Your task to perform on an android device: Go to eBay Image 0: 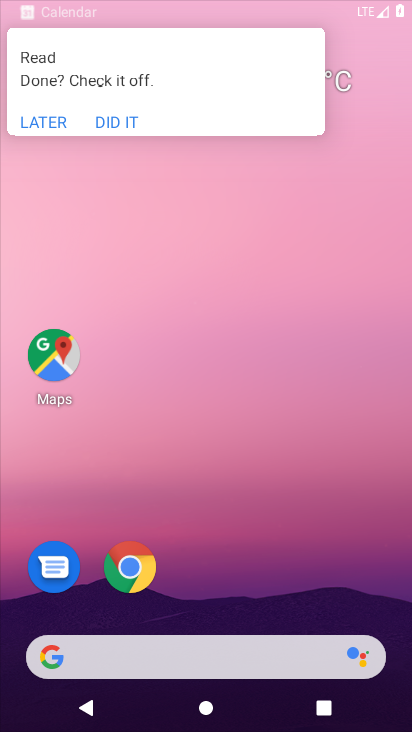
Step 0: drag from (204, 639) to (187, 123)
Your task to perform on an android device: Go to eBay Image 1: 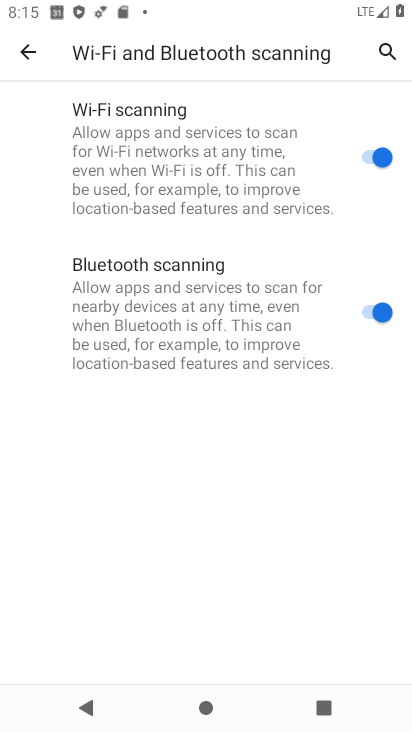
Step 1: press home button
Your task to perform on an android device: Go to eBay Image 2: 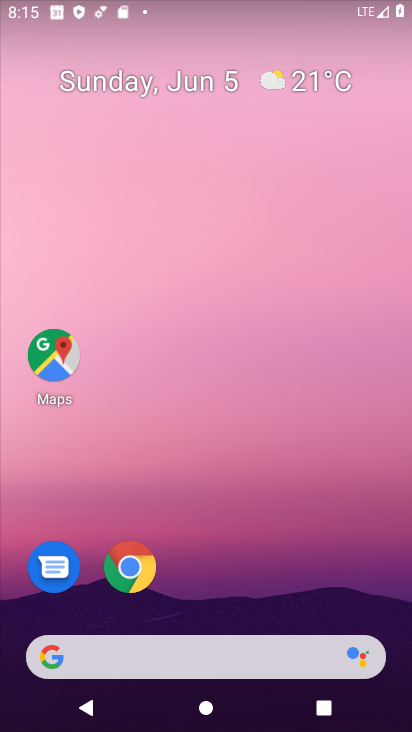
Step 2: click (133, 568)
Your task to perform on an android device: Go to eBay Image 3: 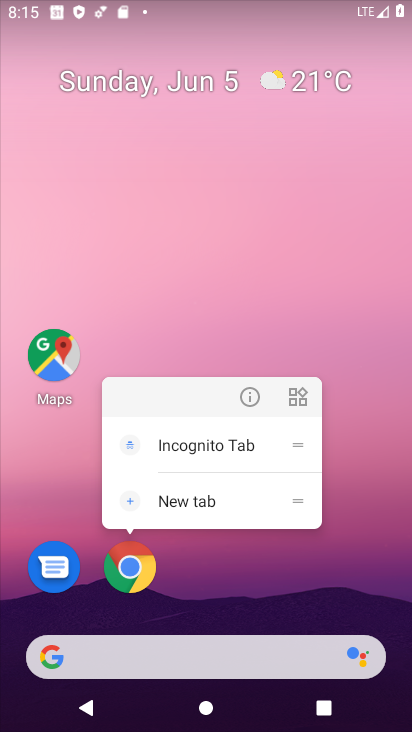
Step 3: click (133, 568)
Your task to perform on an android device: Go to eBay Image 4: 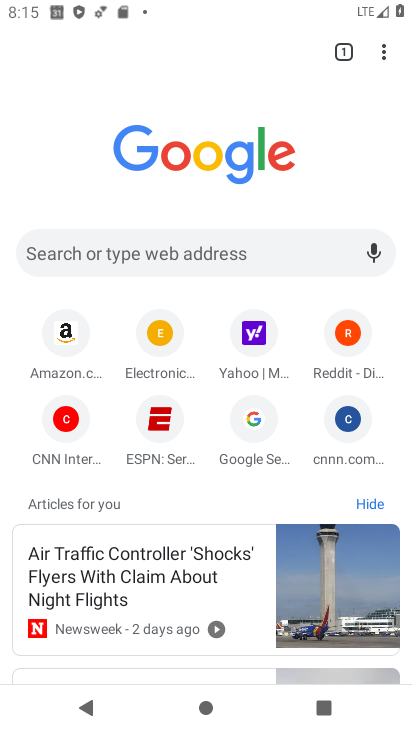
Step 4: click (141, 247)
Your task to perform on an android device: Go to eBay Image 5: 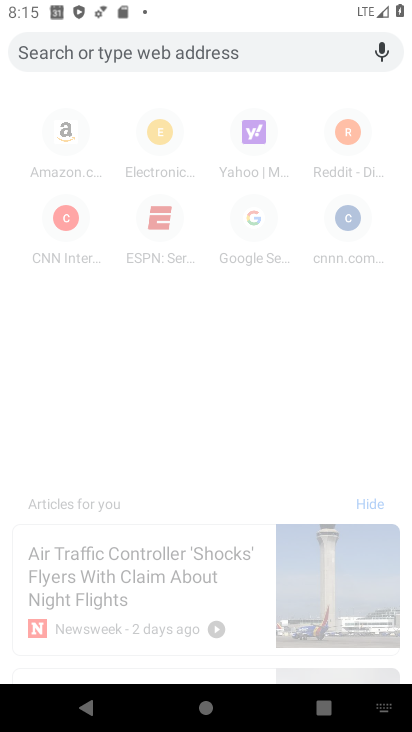
Step 5: type "ebay.com"
Your task to perform on an android device: Go to eBay Image 6: 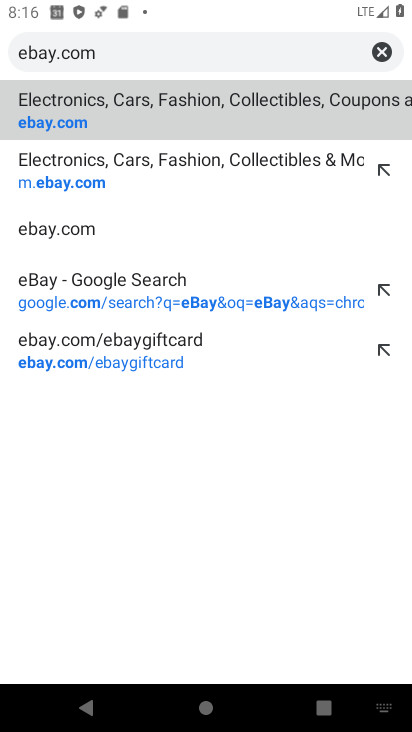
Step 6: click (103, 109)
Your task to perform on an android device: Go to eBay Image 7: 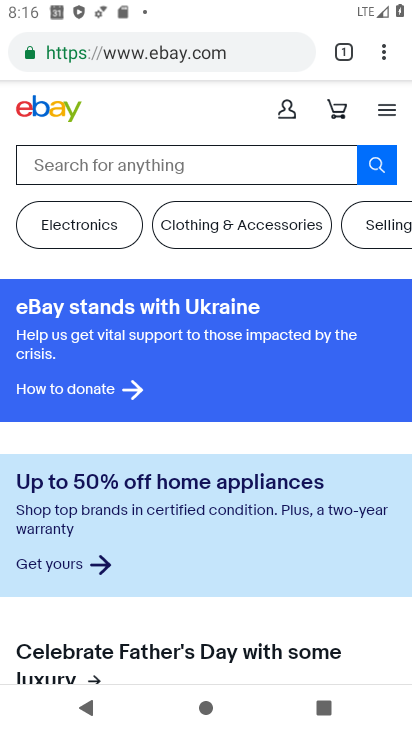
Step 7: task complete